Your task to perform on an android device: set default search engine in the chrome app Image 0: 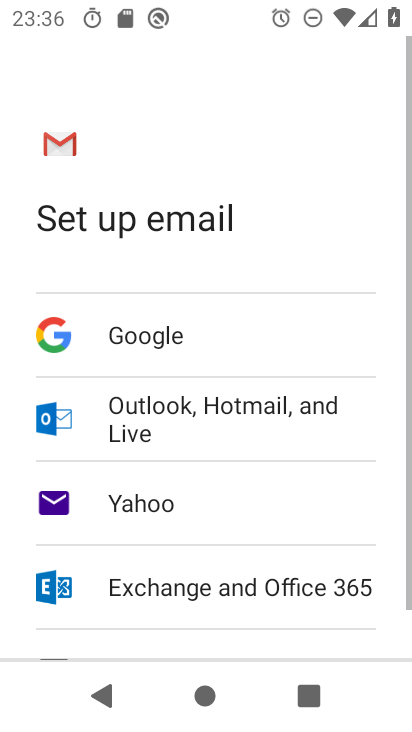
Step 0: press home button
Your task to perform on an android device: set default search engine in the chrome app Image 1: 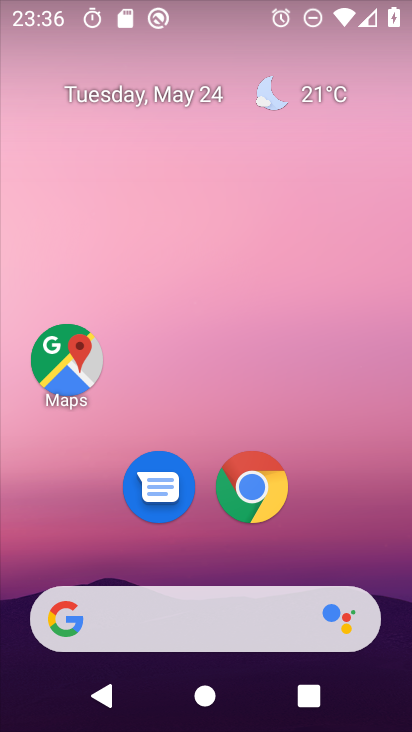
Step 1: click (267, 510)
Your task to perform on an android device: set default search engine in the chrome app Image 2: 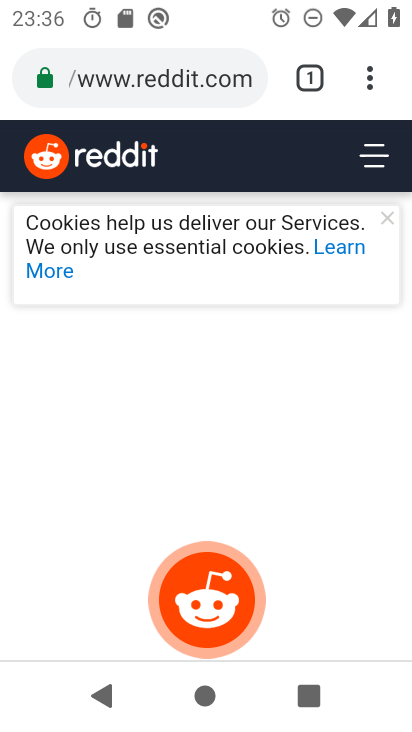
Step 2: click (370, 77)
Your task to perform on an android device: set default search engine in the chrome app Image 3: 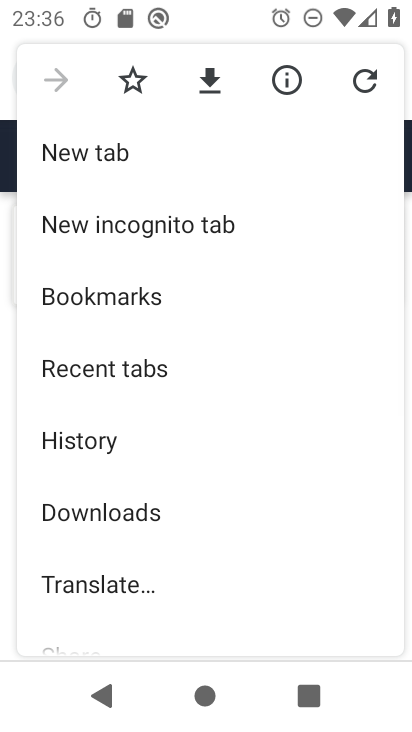
Step 3: drag from (169, 322) to (163, 103)
Your task to perform on an android device: set default search engine in the chrome app Image 4: 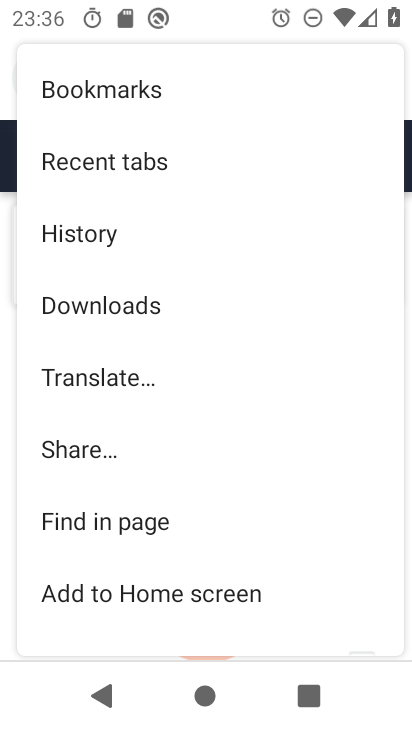
Step 4: drag from (218, 537) to (211, 127)
Your task to perform on an android device: set default search engine in the chrome app Image 5: 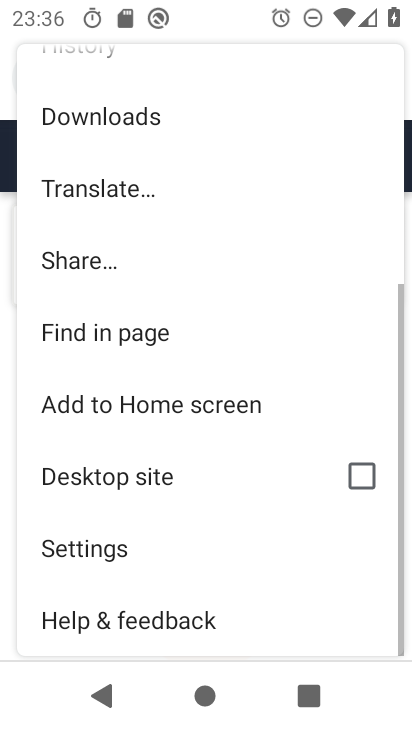
Step 5: click (86, 554)
Your task to perform on an android device: set default search engine in the chrome app Image 6: 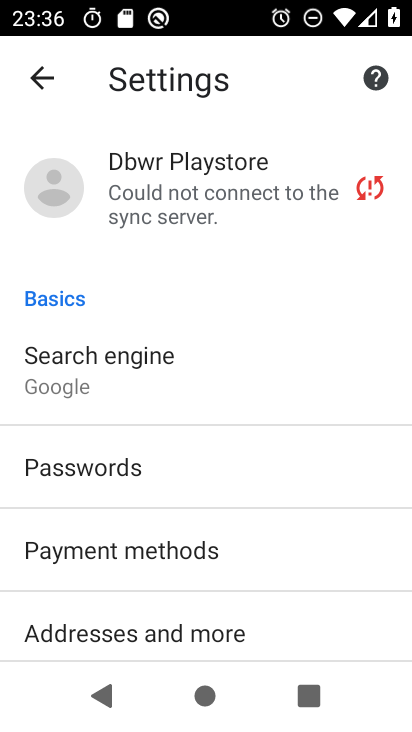
Step 6: click (37, 368)
Your task to perform on an android device: set default search engine in the chrome app Image 7: 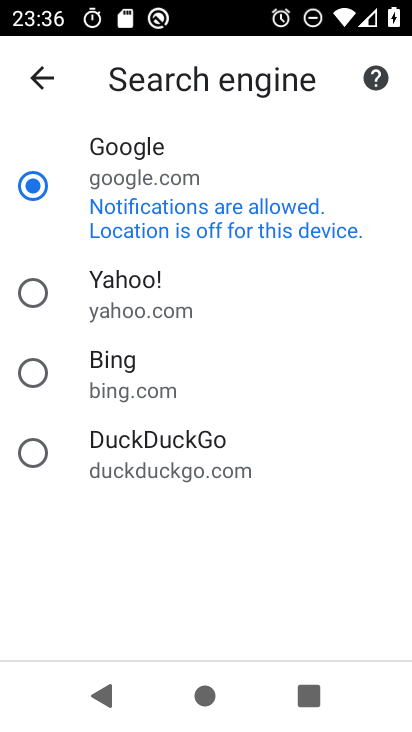
Step 7: click (39, 295)
Your task to perform on an android device: set default search engine in the chrome app Image 8: 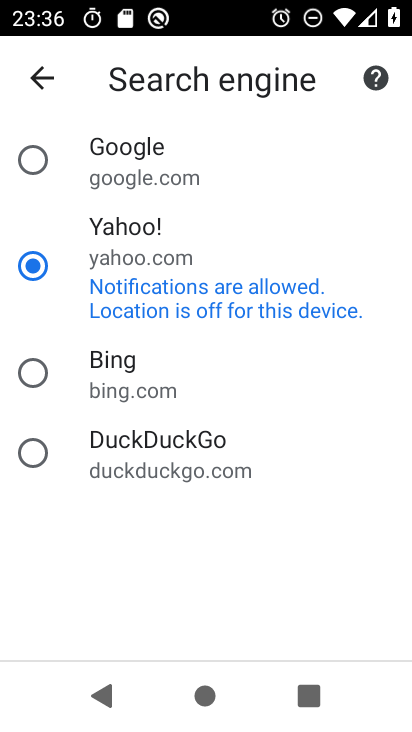
Step 8: task complete